Your task to perform on an android device: snooze an email in the gmail app Image 0: 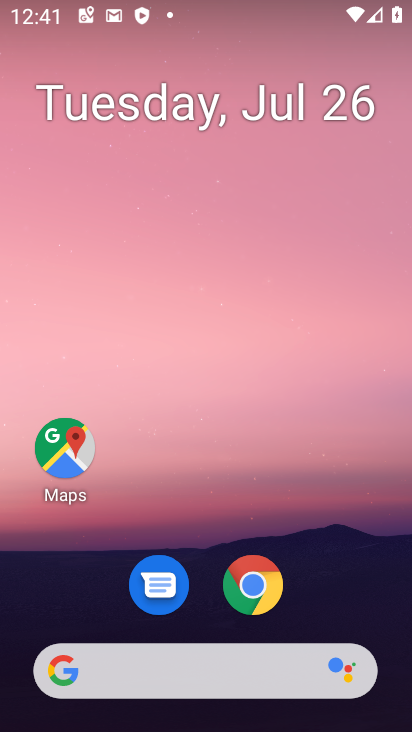
Step 0: press home button
Your task to perform on an android device: snooze an email in the gmail app Image 1: 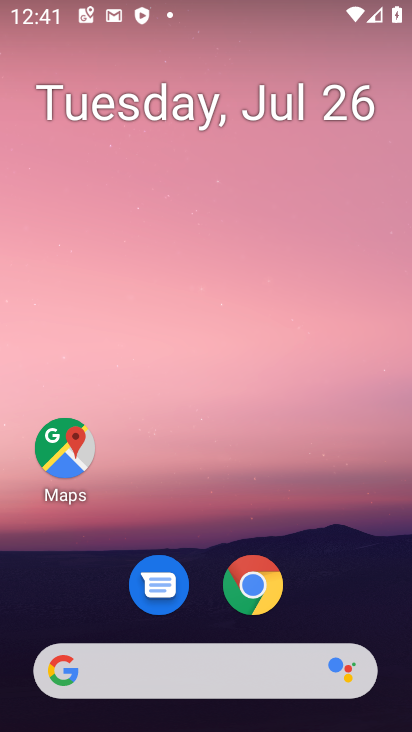
Step 1: drag from (211, 675) to (336, 142)
Your task to perform on an android device: snooze an email in the gmail app Image 2: 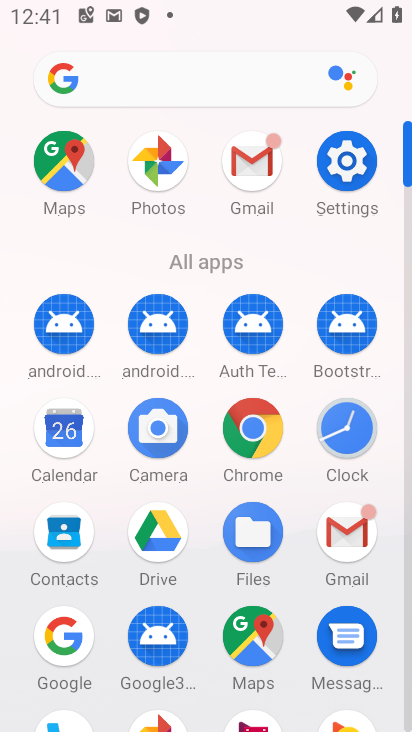
Step 2: click (250, 174)
Your task to perform on an android device: snooze an email in the gmail app Image 3: 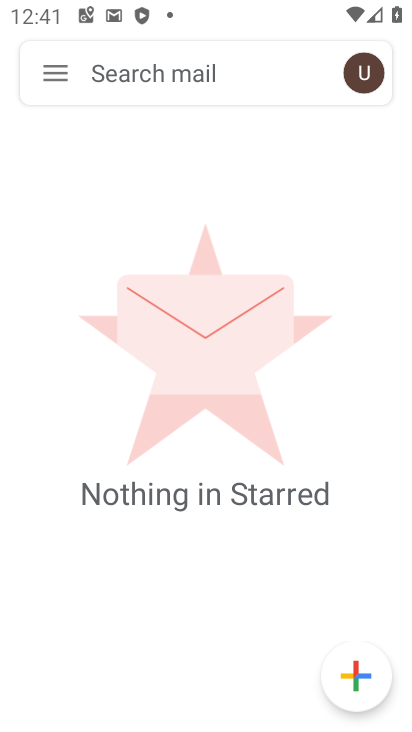
Step 3: click (49, 67)
Your task to perform on an android device: snooze an email in the gmail app Image 4: 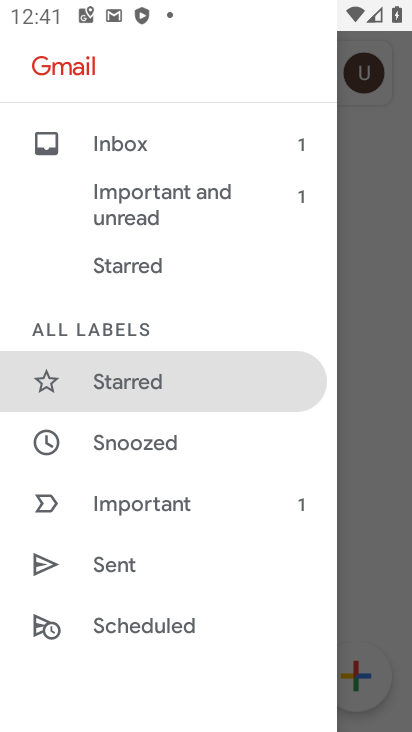
Step 4: click (149, 149)
Your task to perform on an android device: snooze an email in the gmail app Image 5: 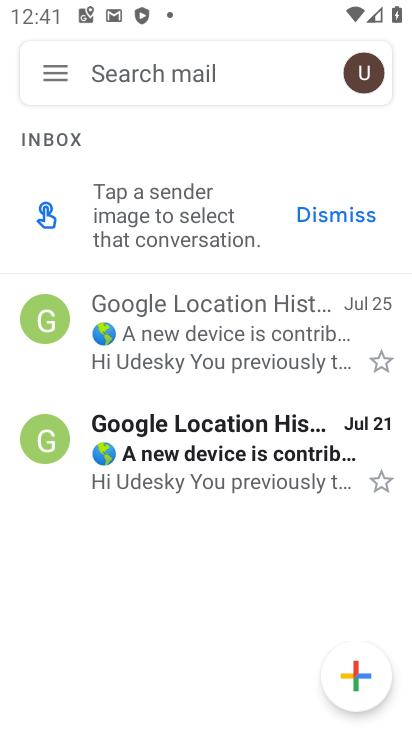
Step 5: click (53, 312)
Your task to perform on an android device: snooze an email in the gmail app Image 6: 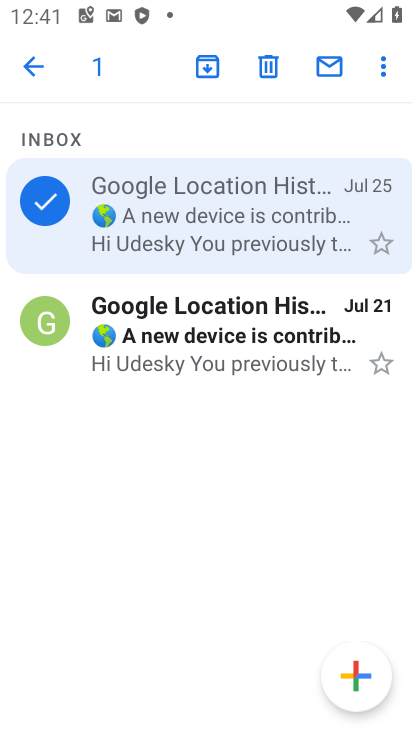
Step 6: click (381, 60)
Your task to perform on an android device: snooze an email in the gmail app Image 7: 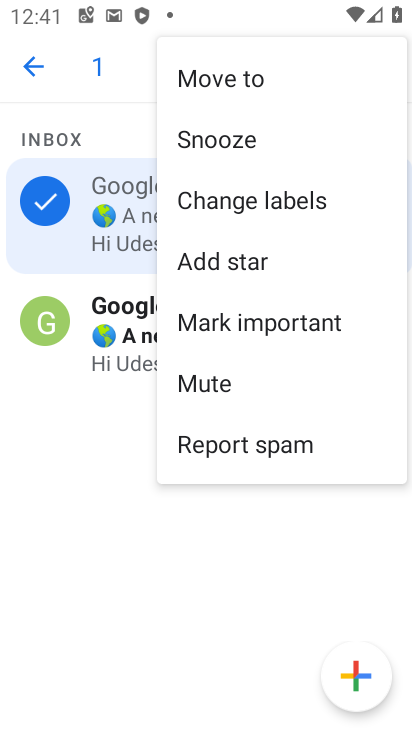
Step 7: click (221, 138)
Your task to perform on an android device: snooze an email in the gmail app Image 8: 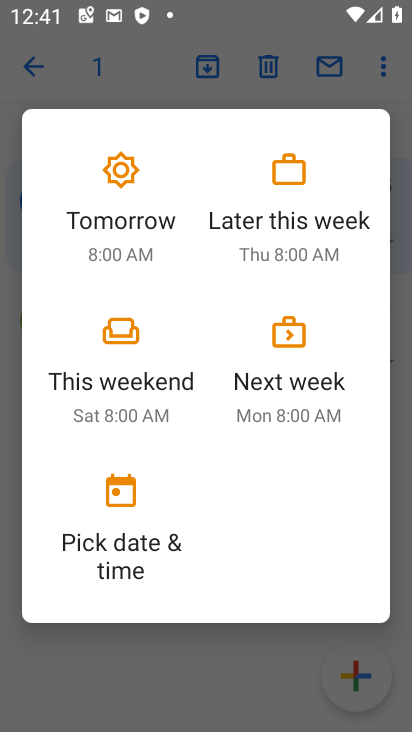
Step 8: click (125, 241)
Your task to perform on an android device: snooze an email in the gmail app Image 9: 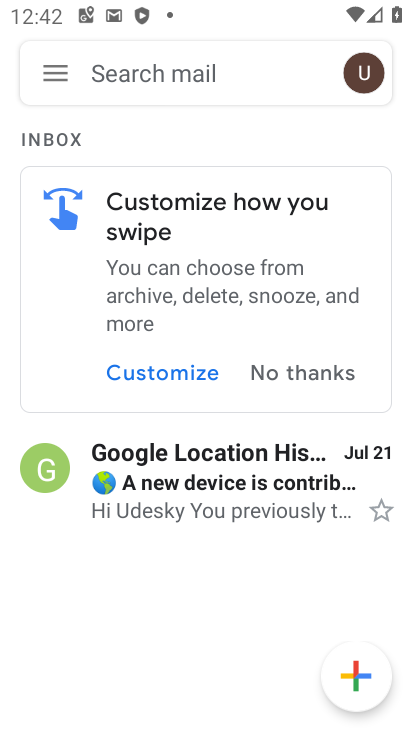
Step 9: task complete